Your task to perform on an android device: Go to eBay Image 0: 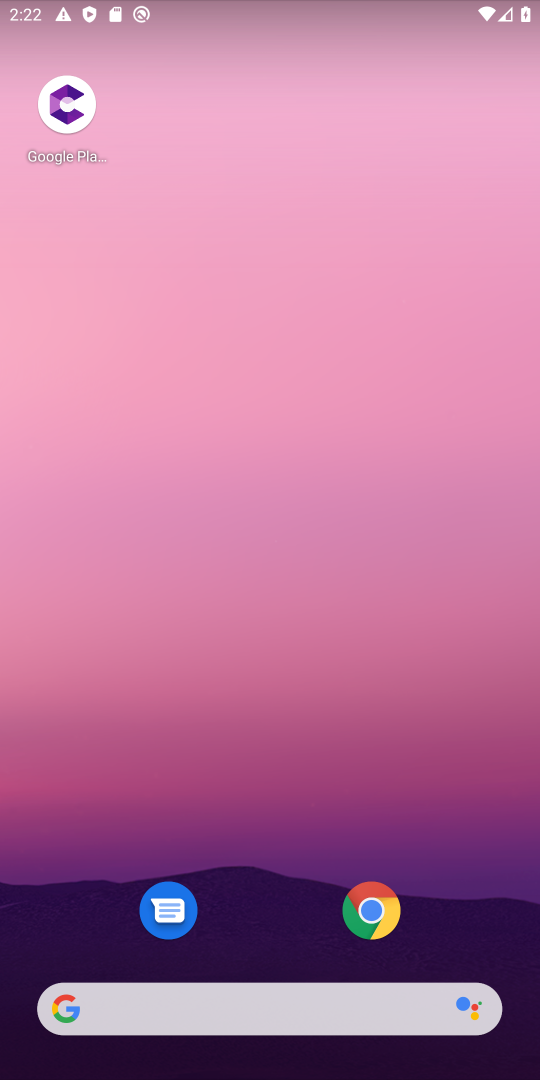
Step 0: click (392, 906)
Your task to perform on an android device: Go to eBay Image 1: 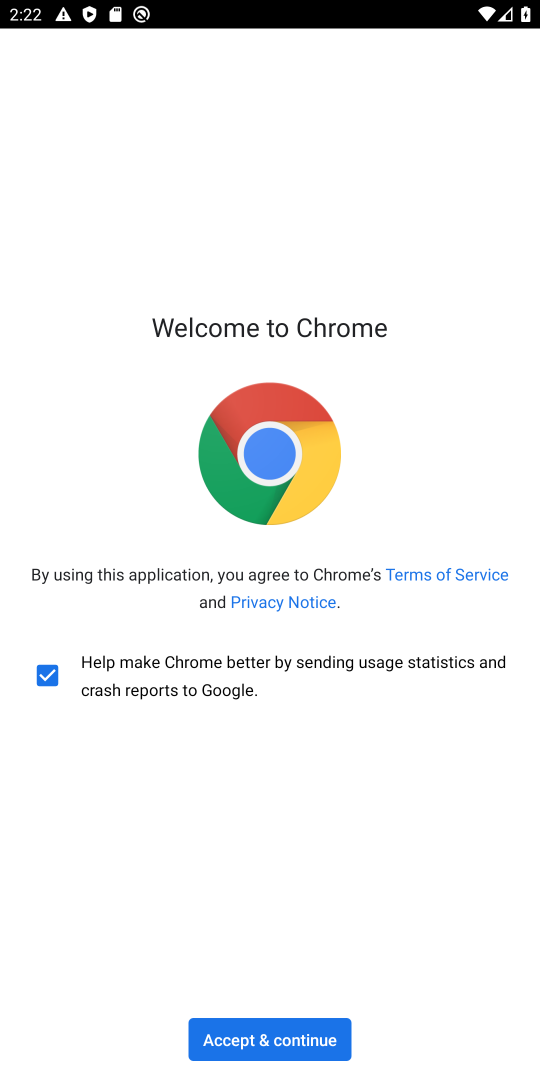
Step 1: click (231, 1048)
Your task to perform on an android device: Go to eBay Image 2: 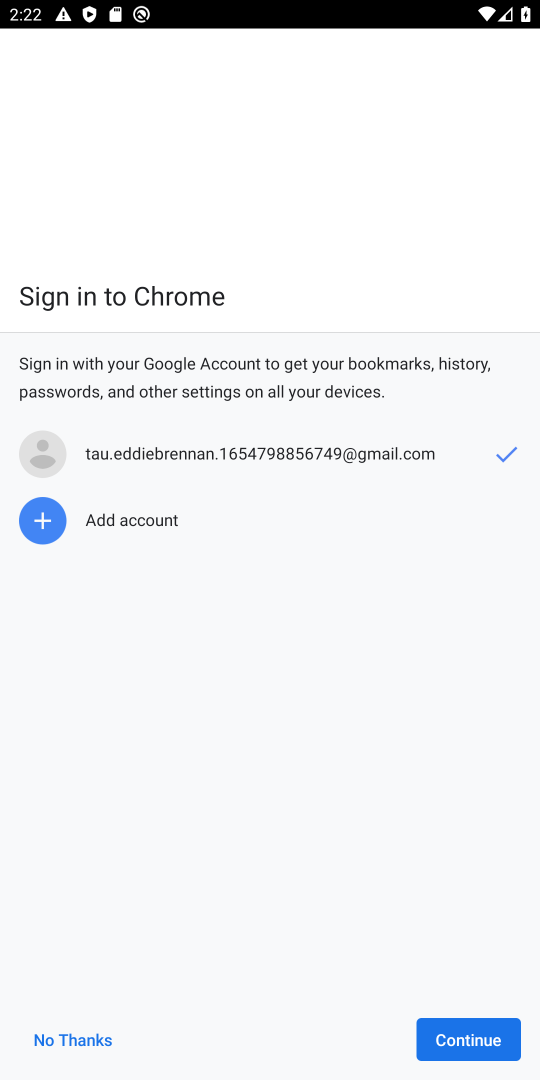
Step 2: click (470, 1029)
Your task to perform on an android device: Go to eBay Image 3: 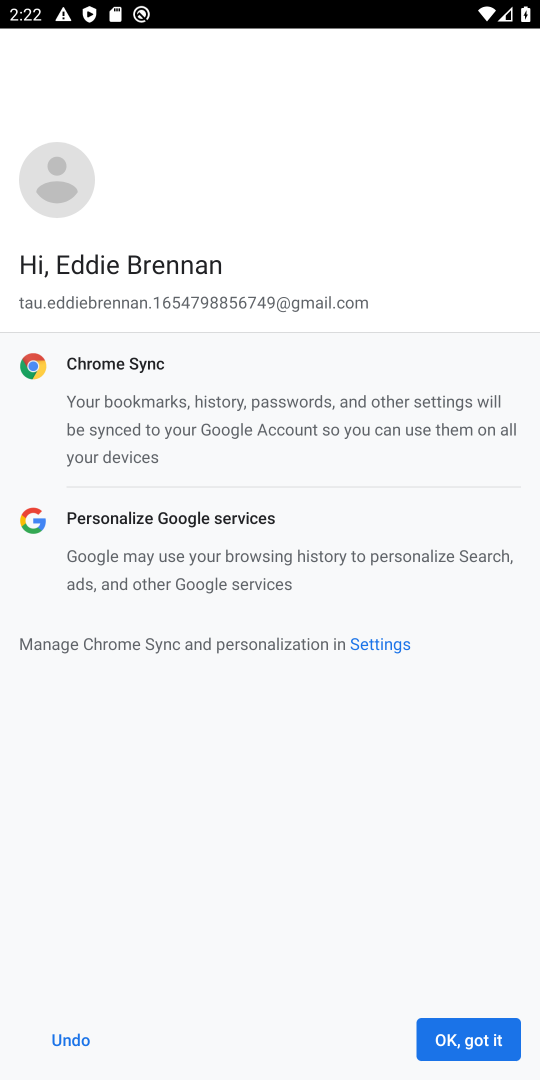
Step 3: click (475, 1051)
Your task to perform on an android device: Go to eBay Image 4: 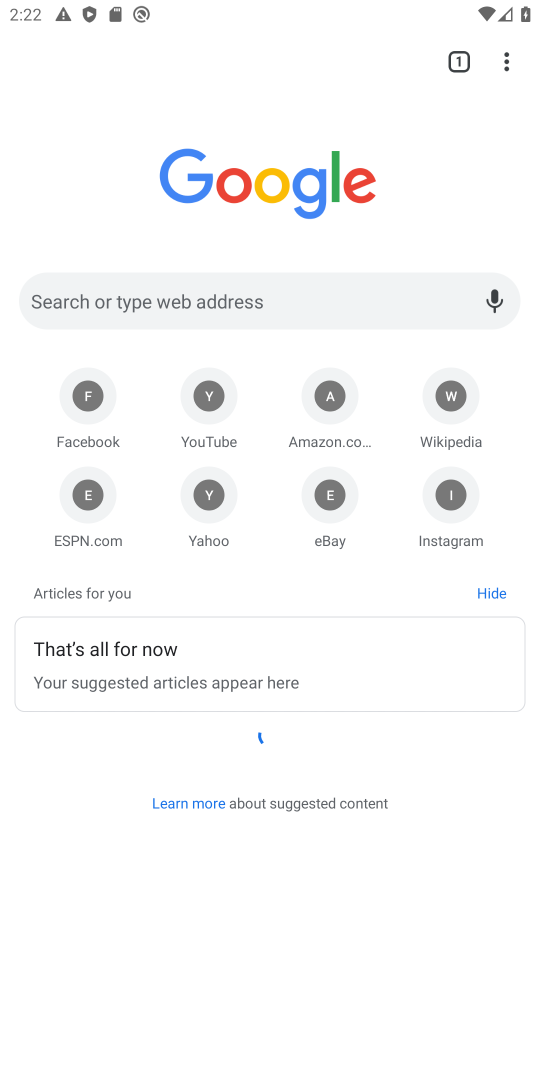
Step 4: click (332, 516)
Your task to perform on an android device: Go to eBay Image 5: 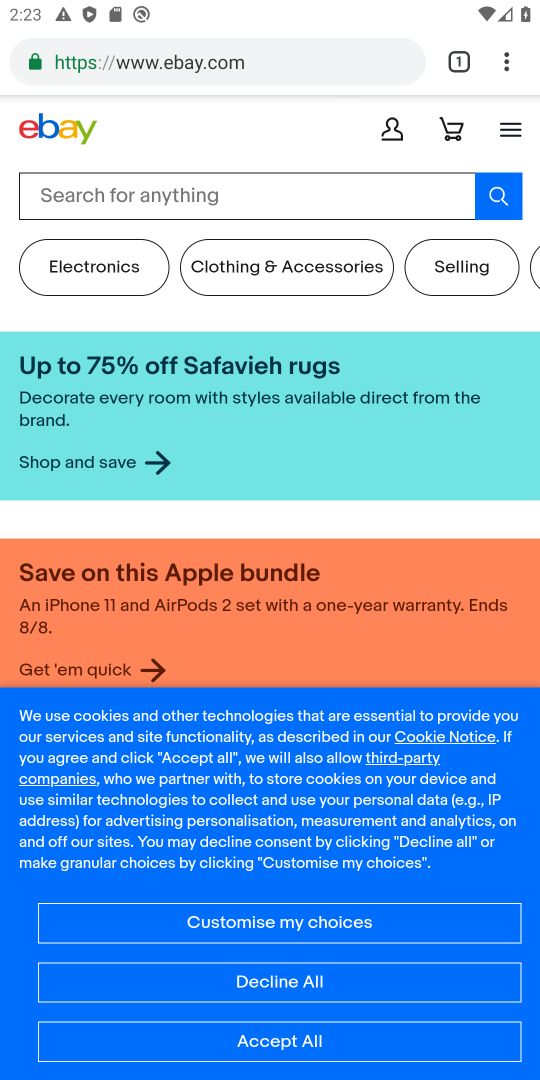
Step 5: task complete